Your task to perform on an android device: manage bookmarks in the chrome app Image 0: 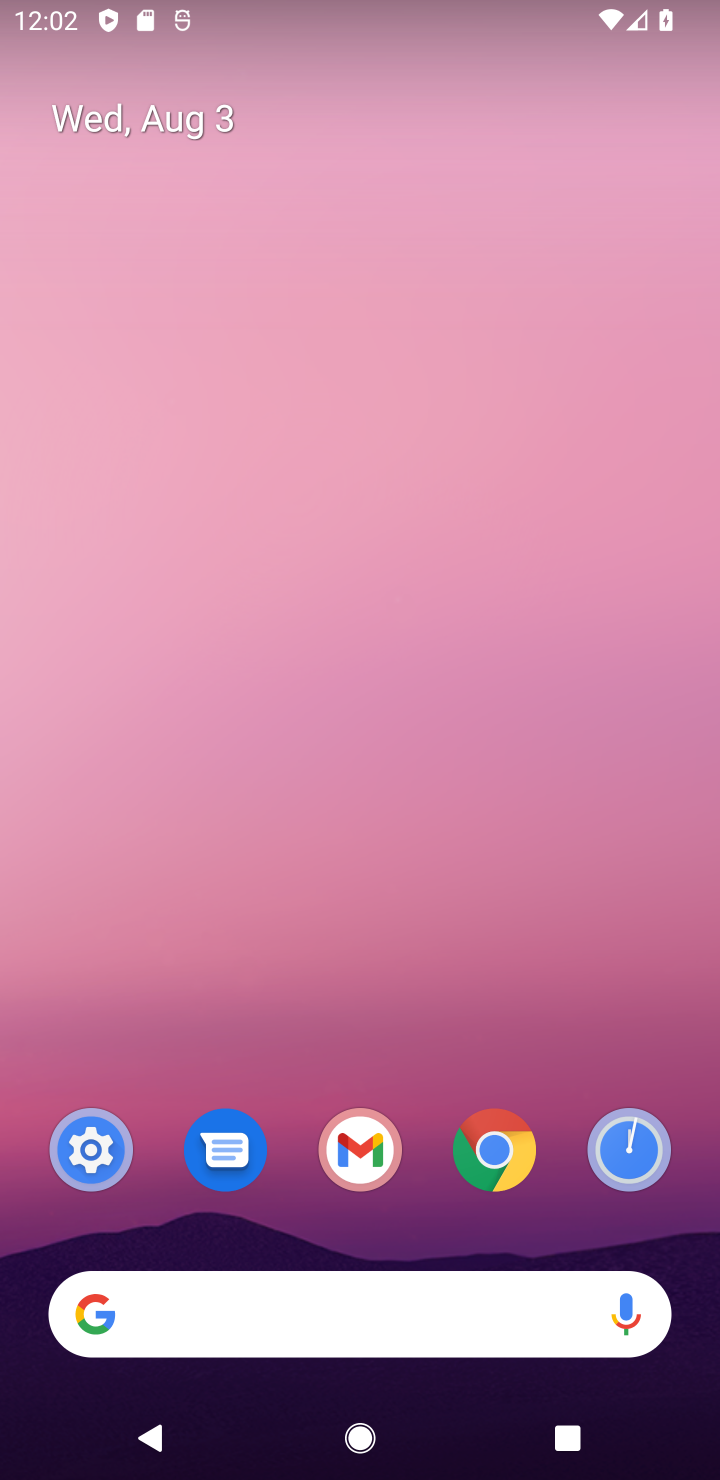
Step 0: press home button
Your task to perform on an android device: manage bookmarks in the chrome app Image 1: 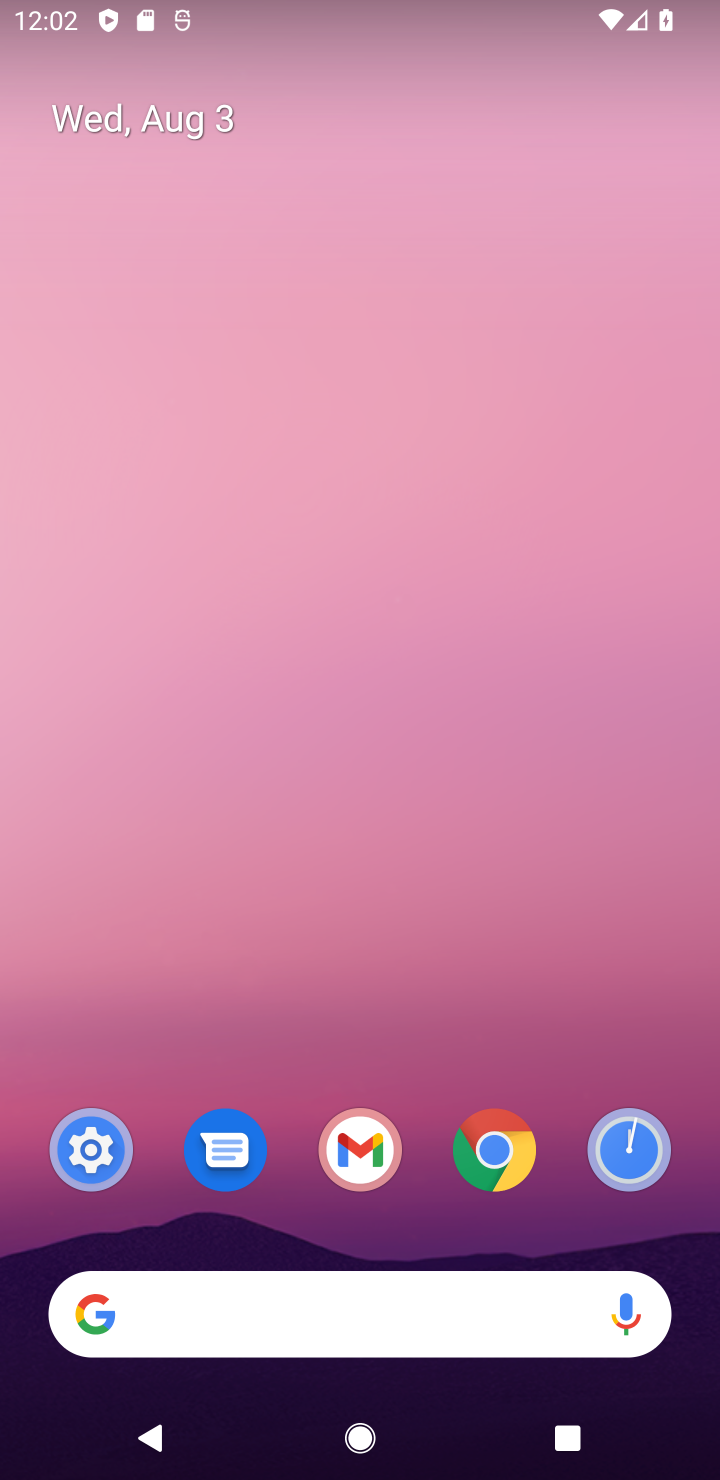
Step 1: drag from (417, 1164) to (415, 437)
Your task to perform on an android device: manage bookmarks in the chrome app Image 2: 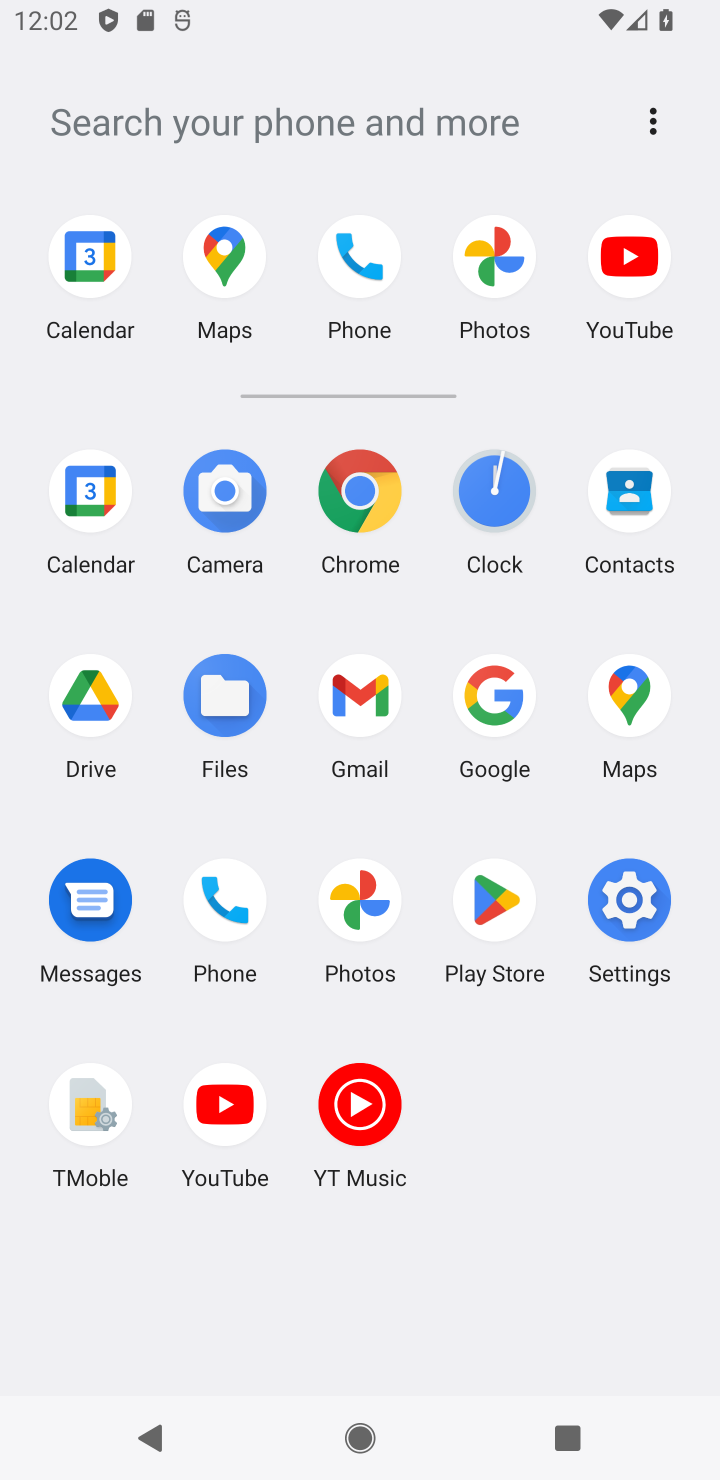
Step 2: click (362, 505)
Your task to perform on an android device: manage bookmarks in the chrome app Image 3: 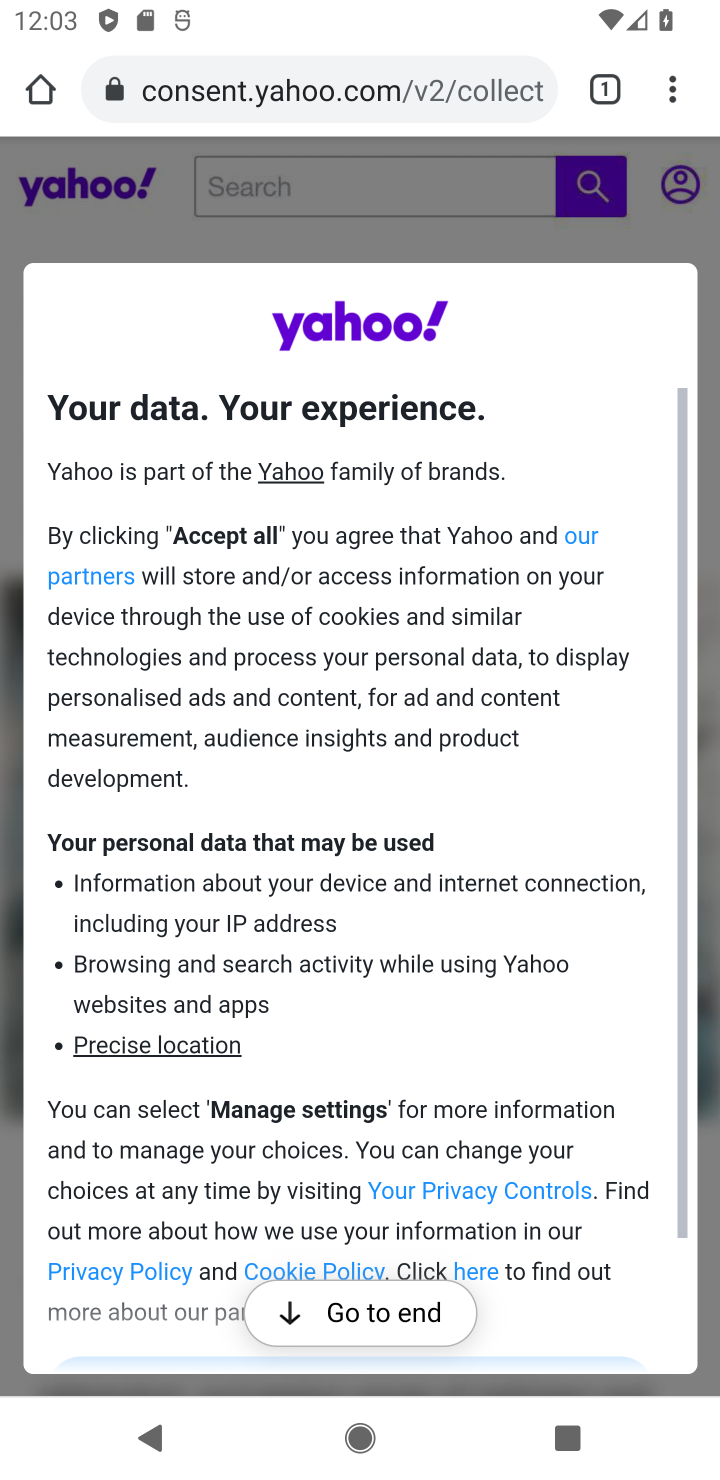
Step 3: click (673, 87)
Your task to perform on an android device: manage bookmarks in the chrome app Image 4: 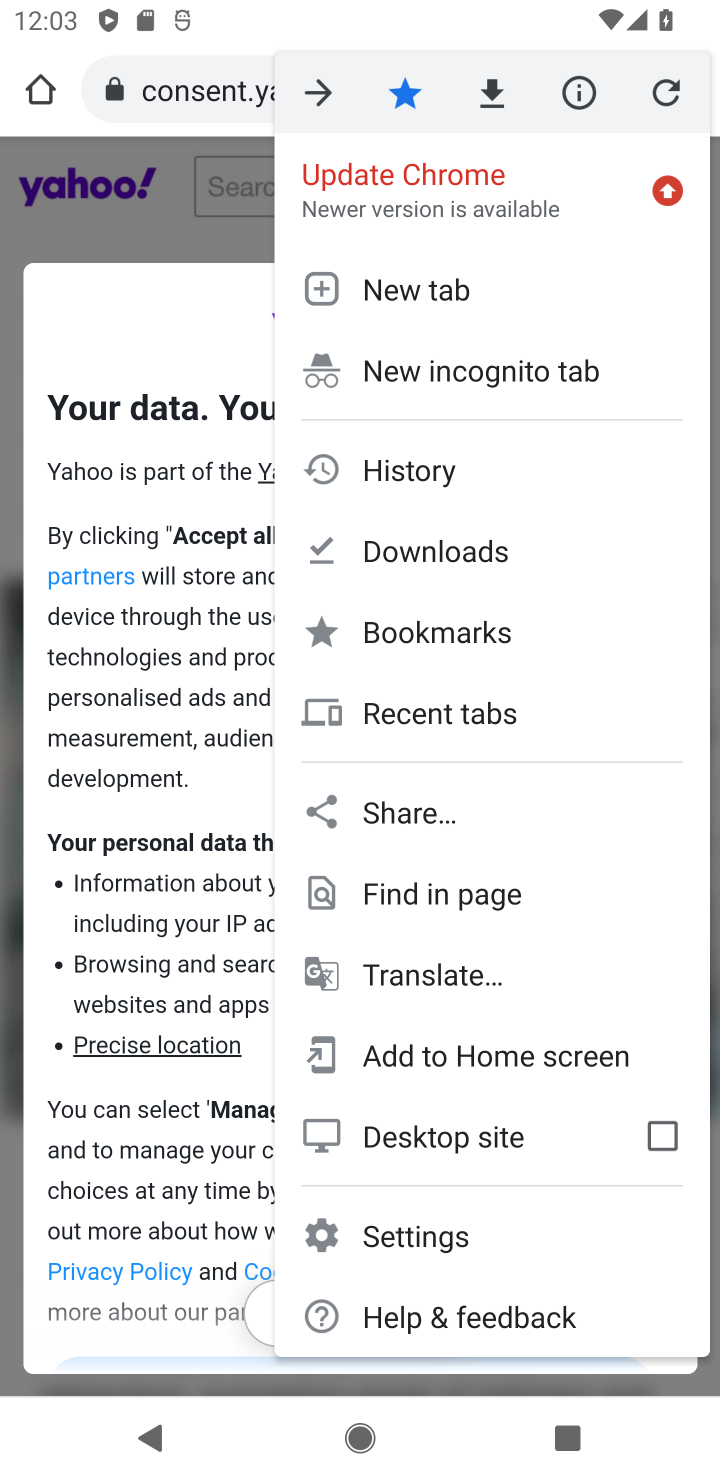
Step 4: click (513, 639)
Your task to perform on an android device: manage bookmarks in the chrome app Image 5: 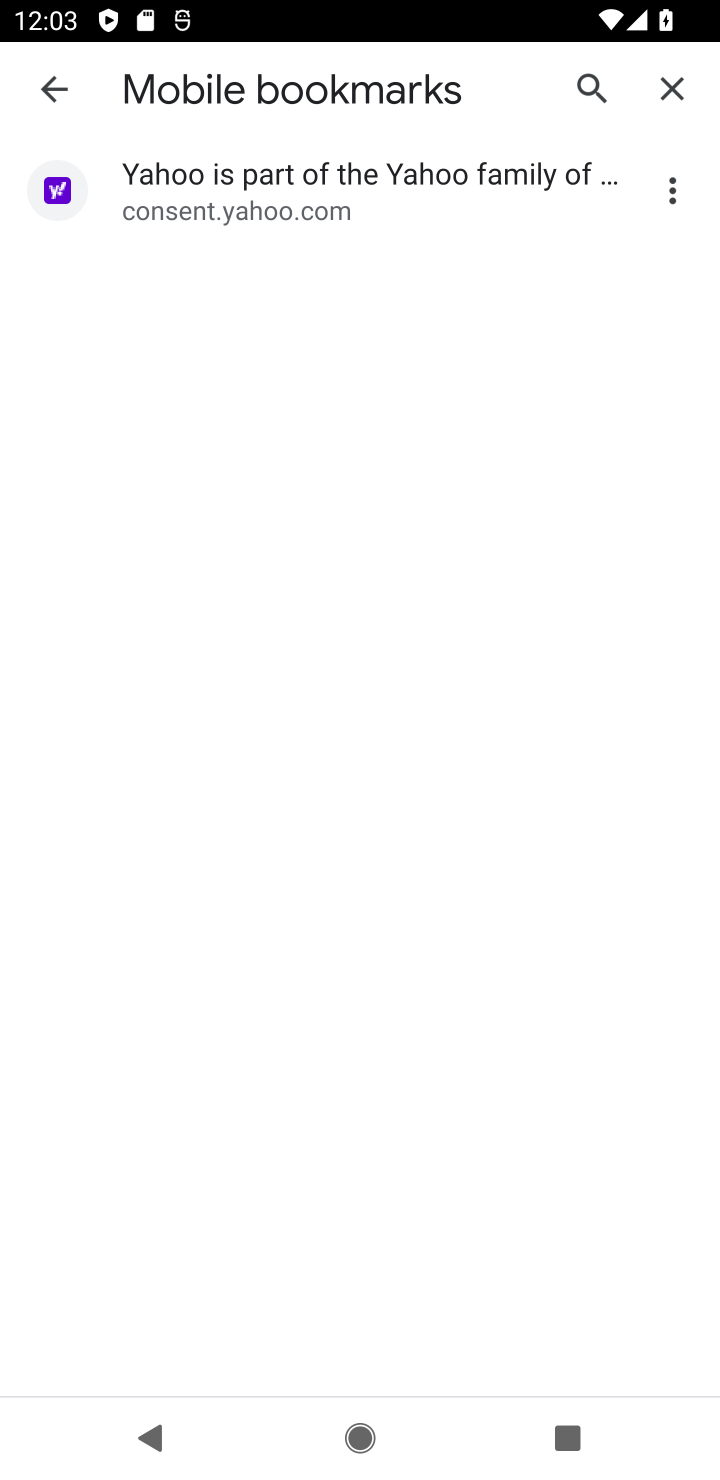
Step 5: click (675, 192)
Your task to perform on an android device: manage bookmarks in the chrome app Image 6: 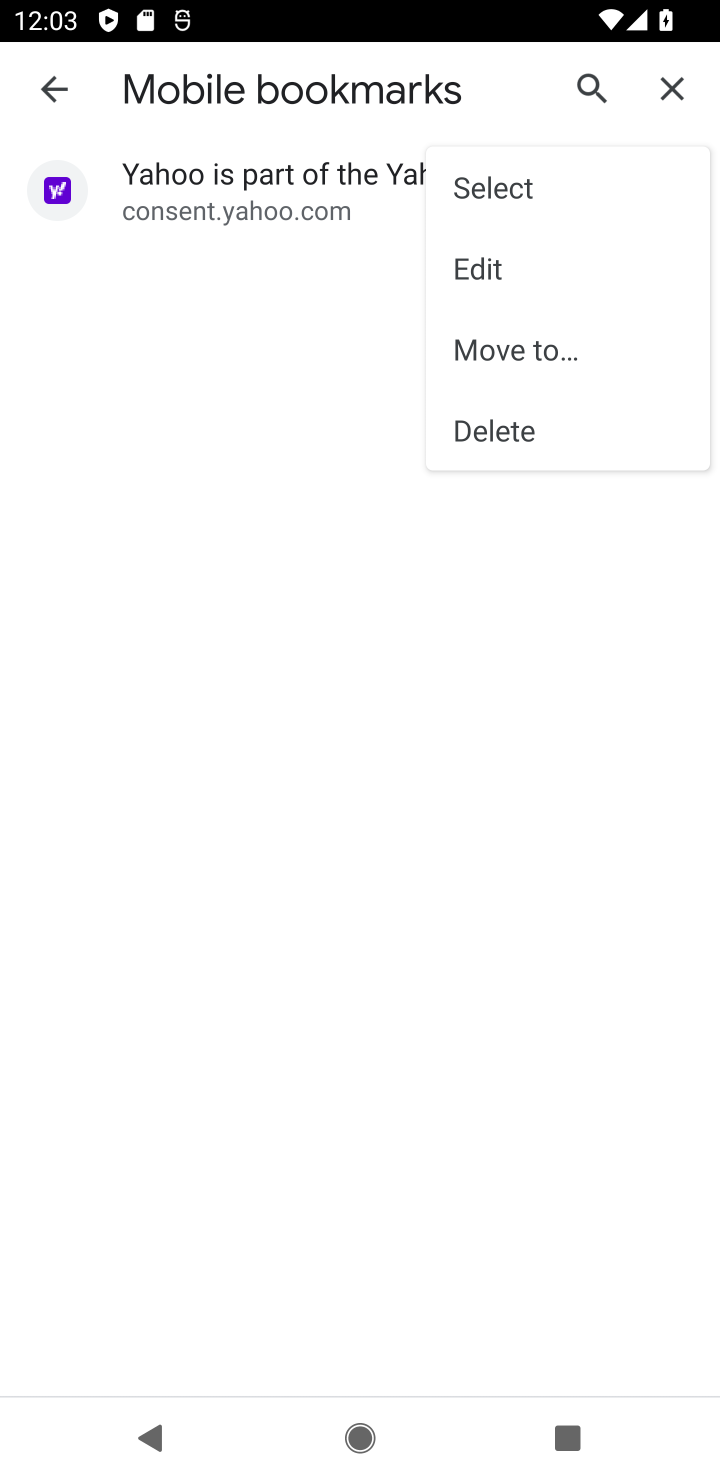
Step 6: click (521, 269)
Your task to perform on an android device: manage bookmarks in the chrome app Image 7: 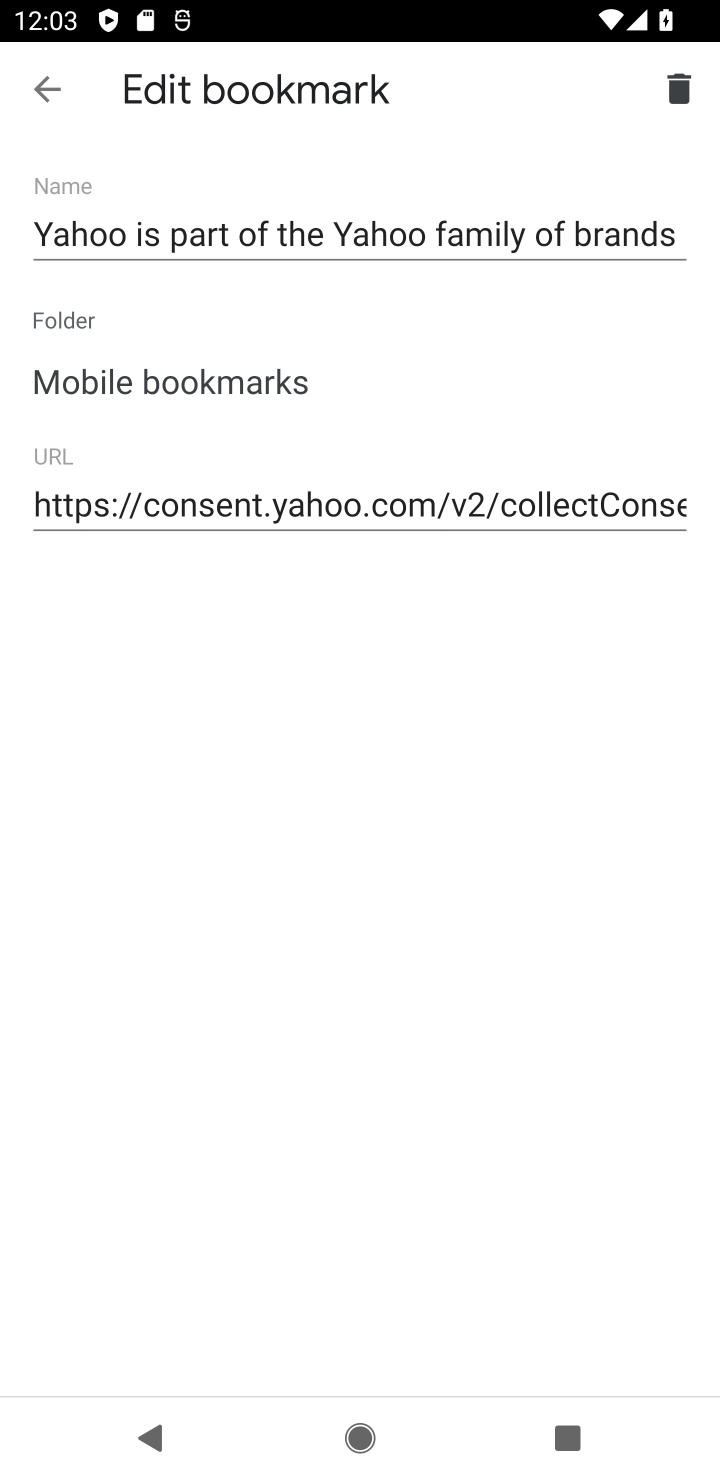
Step 7: click (680, 237)
Your task to perform on an android device: manage bookmarks in the chrome app Image 8: 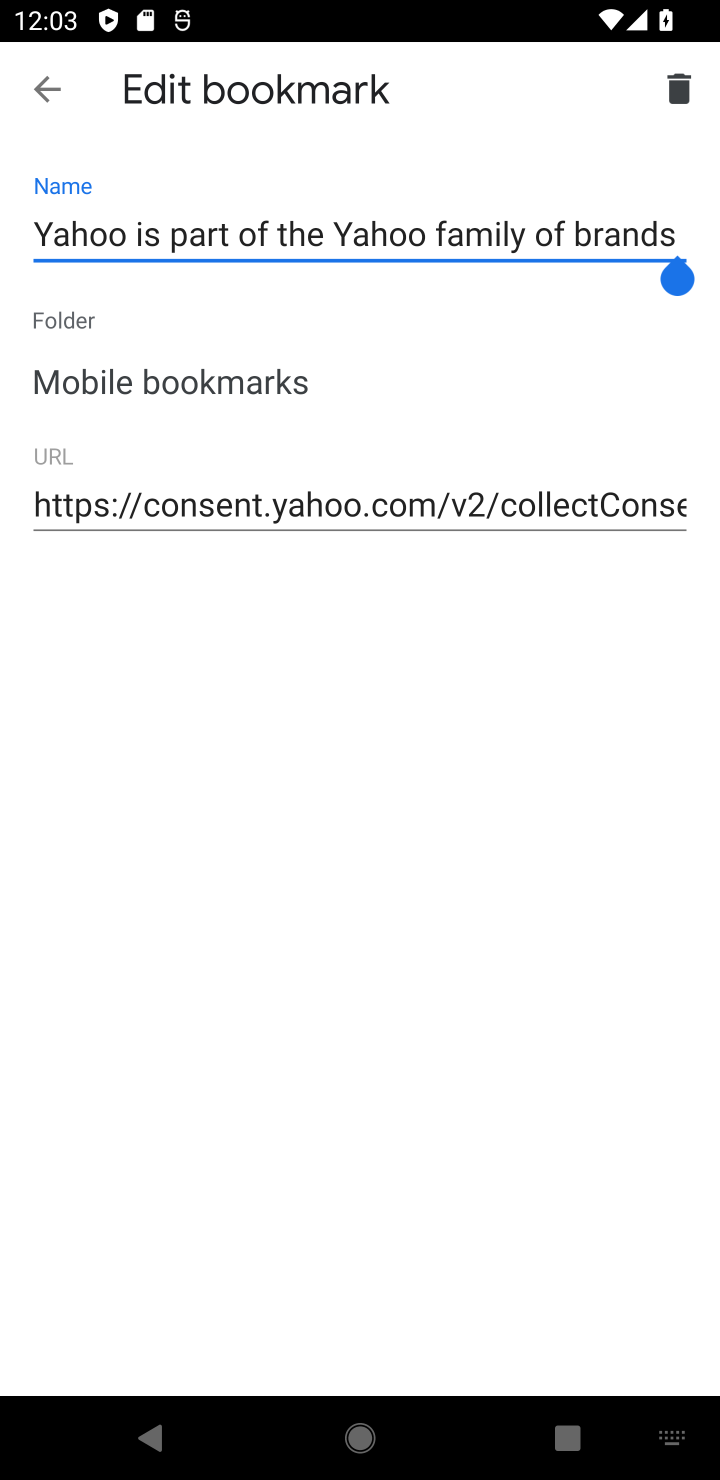
Step 8: type "s"
Your task to perform on an android device: manage bookmarks in the chrome app Image 9: 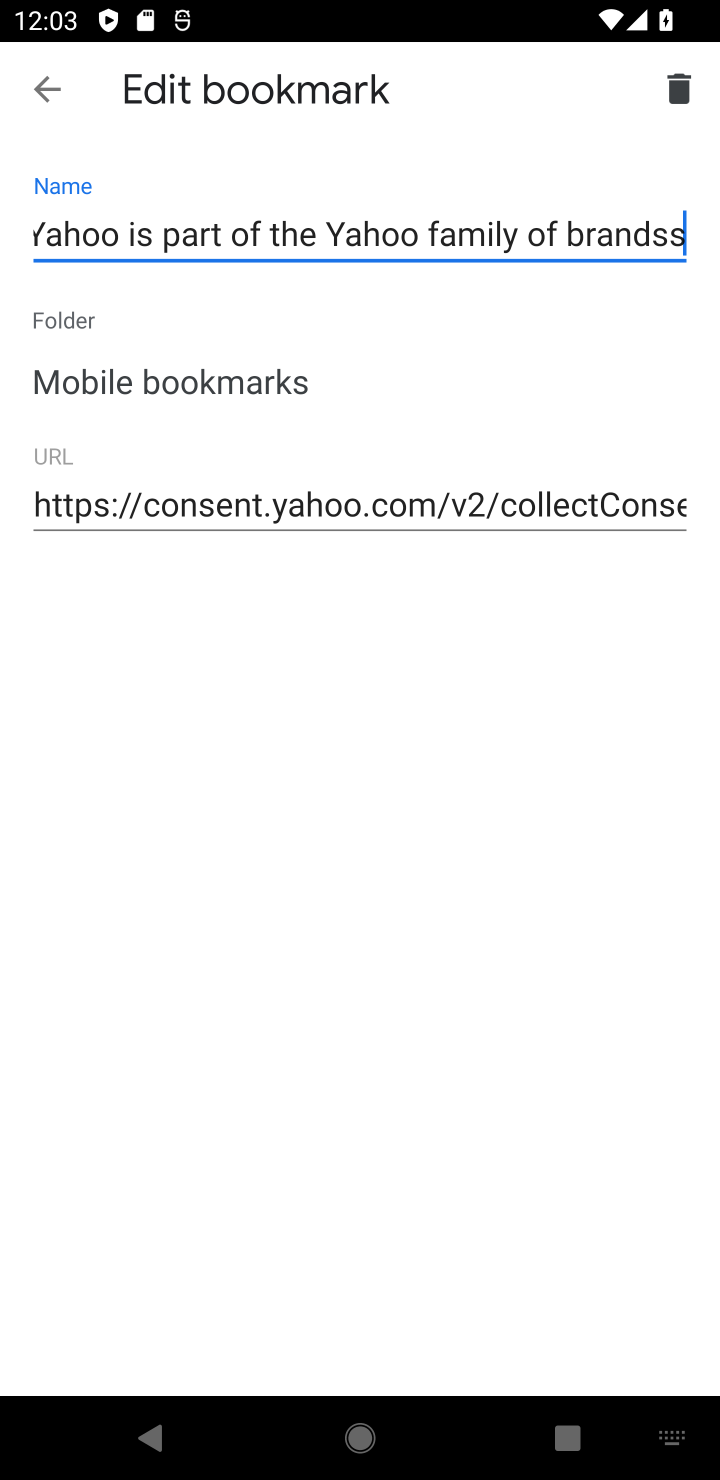
Step 9: click (50, 85)
Your task to perform on an android device: manage bookmarks in the chrome app Image 10: 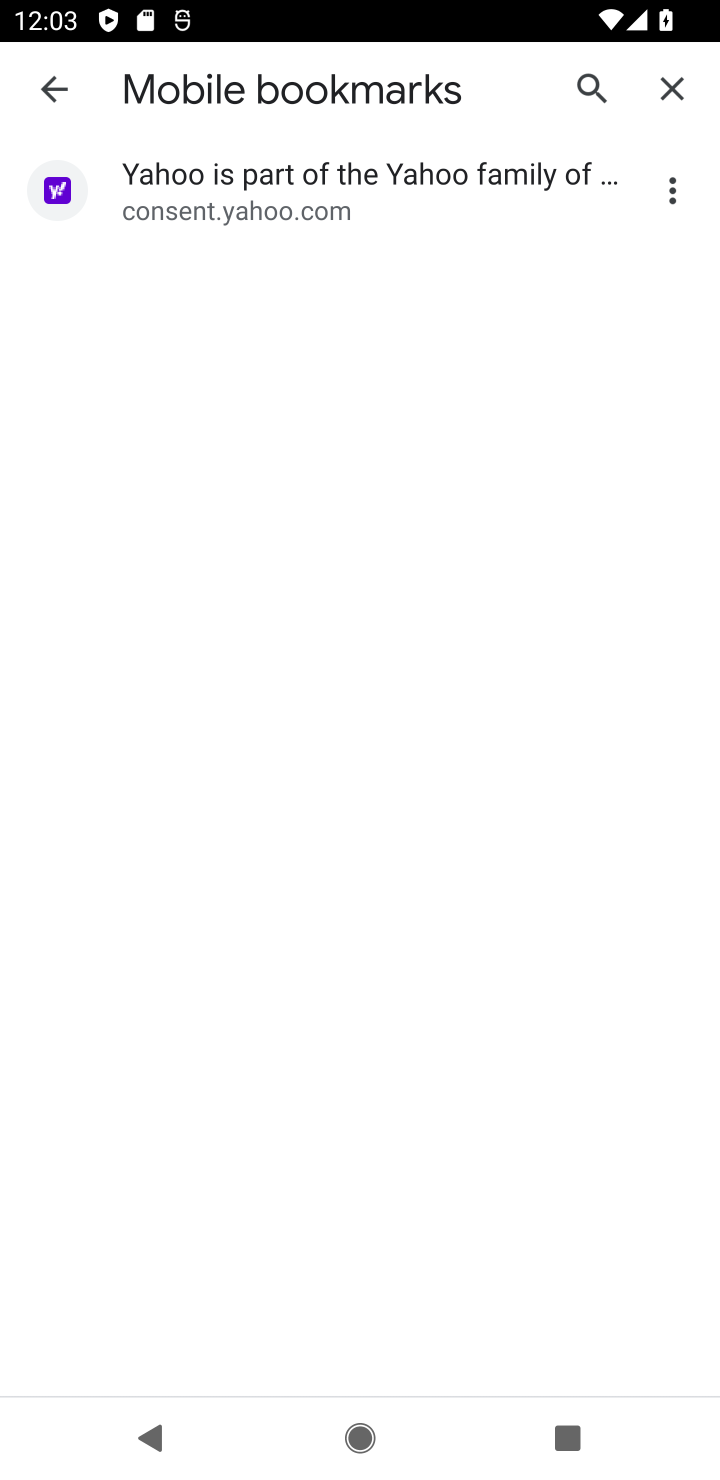
Step 10: task complete